Your task to perform on an android device: toggle sleep mode Image 0: 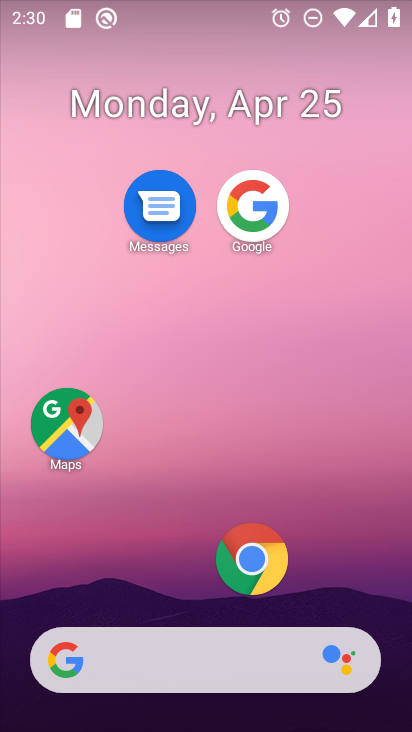
Step 0: drag from (137, 546) to (189, 112)
Your task to perform on an android device: toggle sleep mode Image 1: 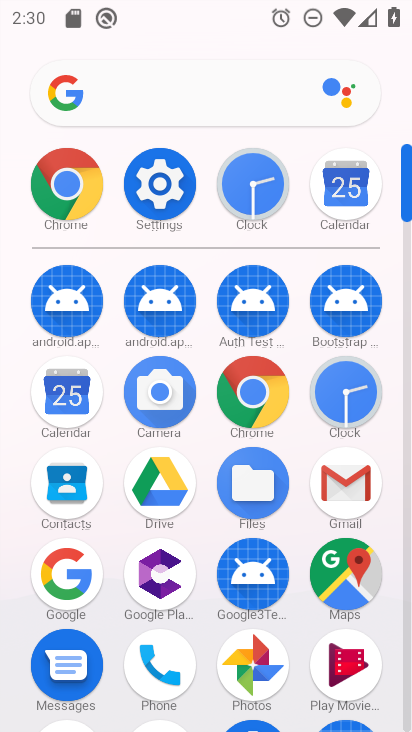
Step 1: click (160, 183)
Your task to perform on an android device: toggle sleep mode Image 2: 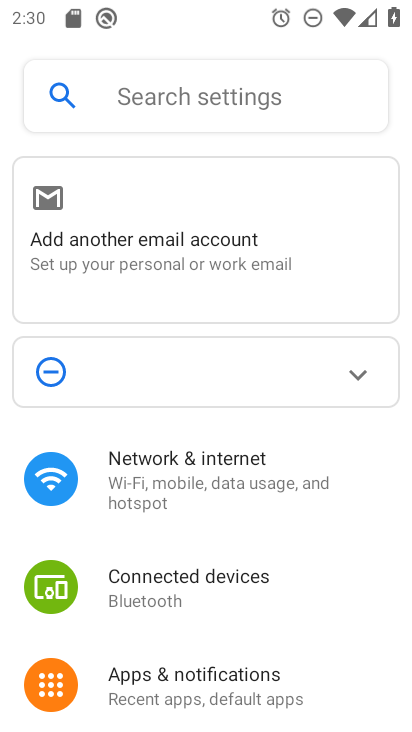
Step 2: drag from (252, 651) to (185, 184)
Your task to perform on an android device: toggle sleep mode Image 3: 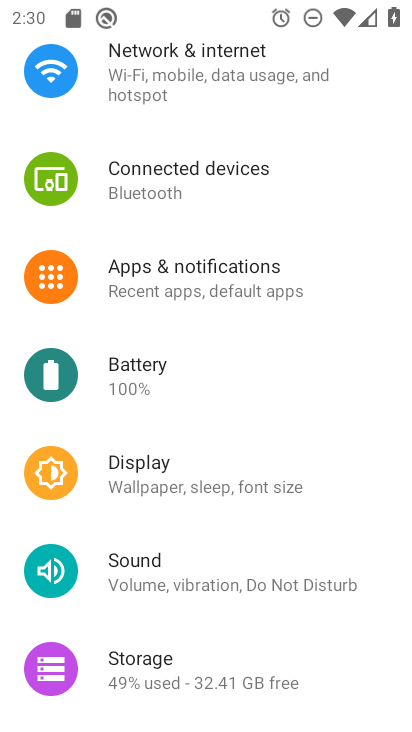
Step 3: click (166, 478)
Your task to perform on an android device: toggle sleep mode Image 4: 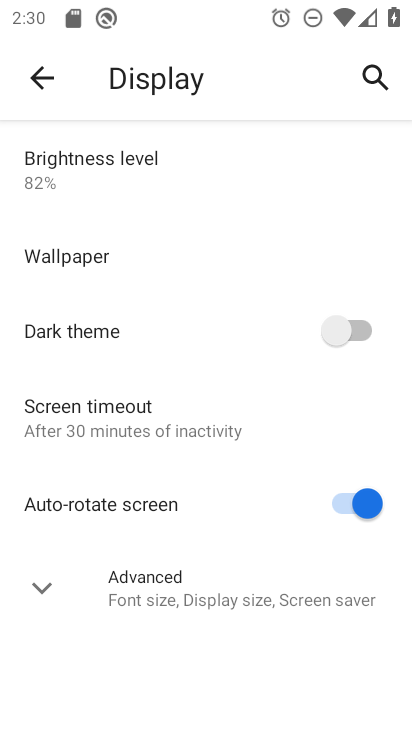
Step 4: click (123, 400)
Your task to perform on an android device: toggle sleep mode Image 5: 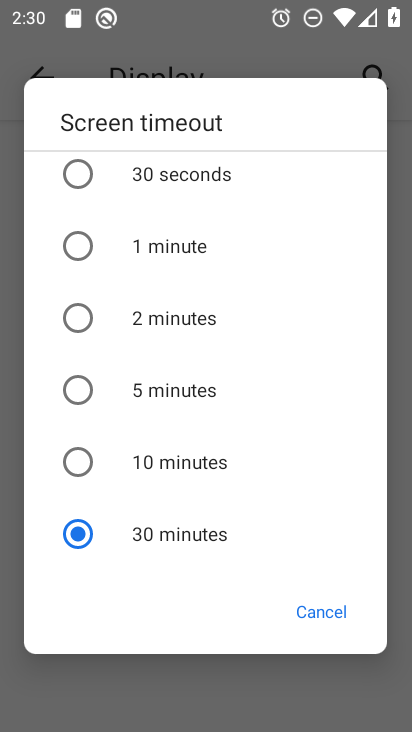
Step 5: click (81, 393)
Your task to perform on an android device: toggle sleep mode Image 6: 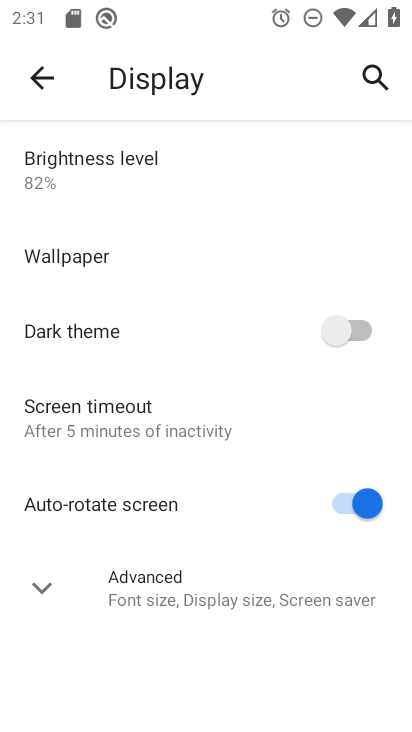
Step 6: task complete